Your task to perform on an android device: Turn off the flashlight Image 0: 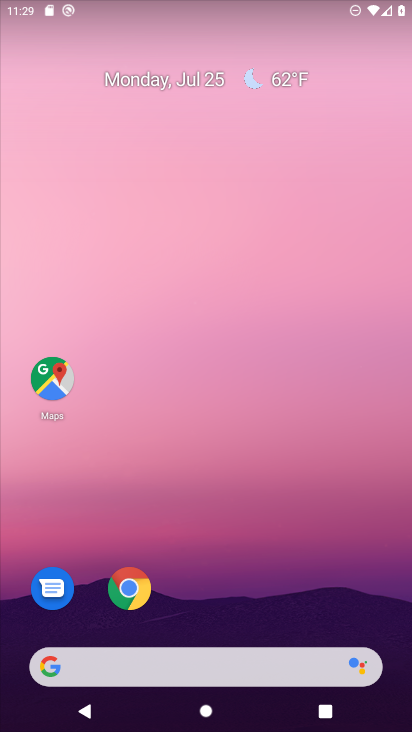
Step 0: drag from (70, 645) to (267, 121)
Your task to perform on an android device: Turn off the flashlight Image 1: 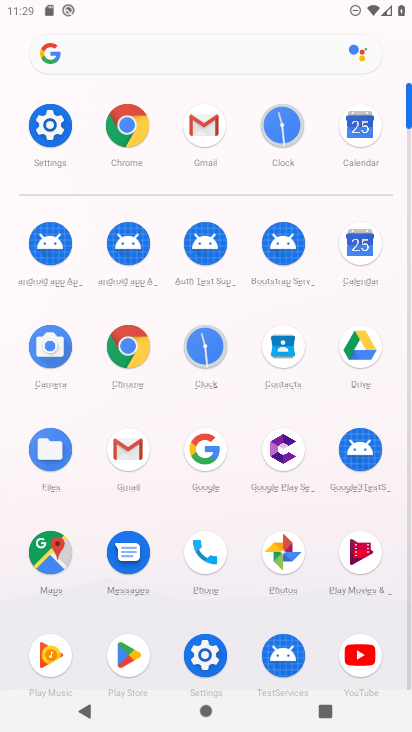
Step 1: click (51, 135)
Your task to perform on an android device: Turn off the flashlight Image 2: 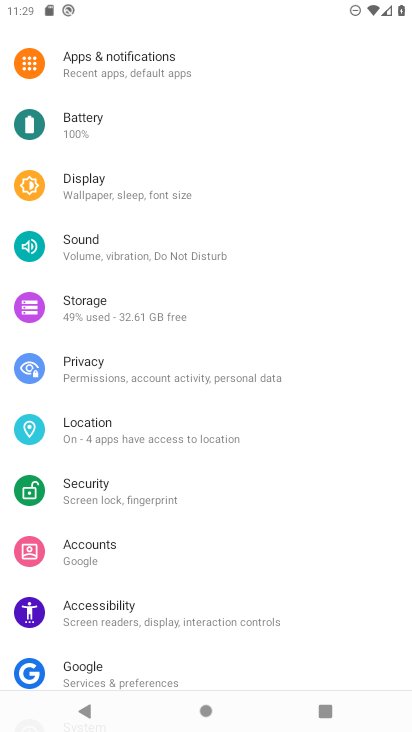
Step 2: task complete